Your task to perform on an android device: Open settings on Google Maps Image 0: 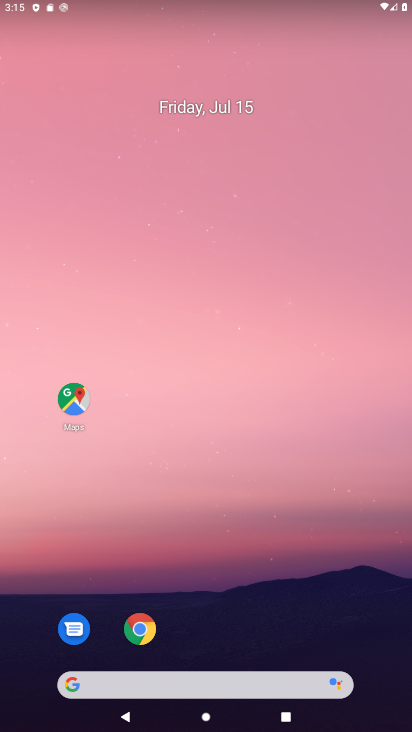
Step 0: click (78, 402)
Your task to perform on an android device: Open settings on Google Maps Image 1: 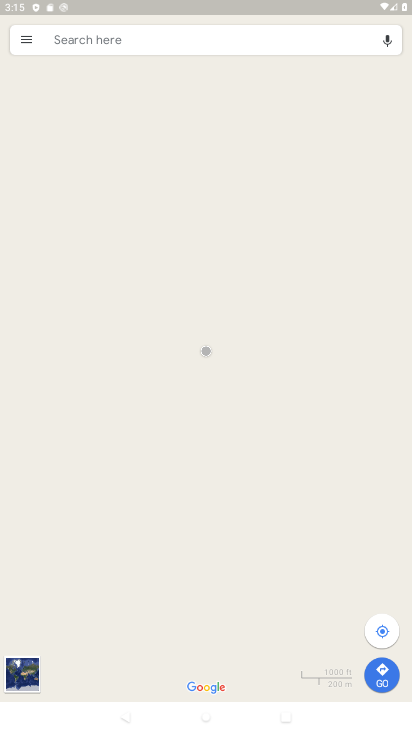
Step 1: click (27, 32)
Your task to perform on an android device: Open settings on Google Maps Image 2: 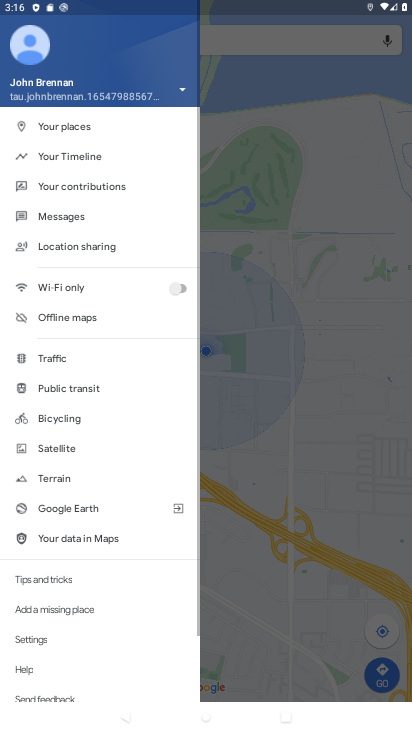
Step 2: click (58, 637)
Your task to perform on an android device: Open settings on Google Maps Image 3: 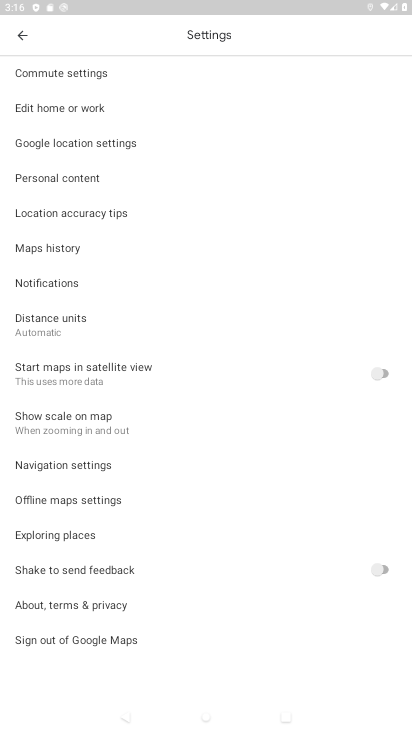
Step 3: task complete